Your task to perform on an android device: Show me productivity apps on the Play Store Image 0: 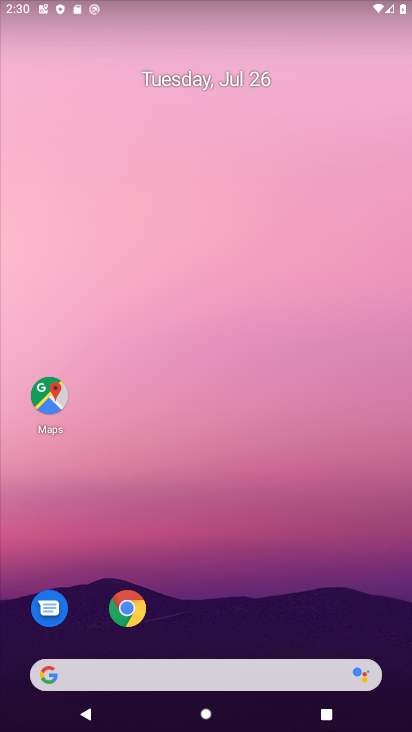
Step 0: drag from (305, 631) to (305, 109)
Your task to perform on an android device: Show me productivity apps on the Play Store Image 1: 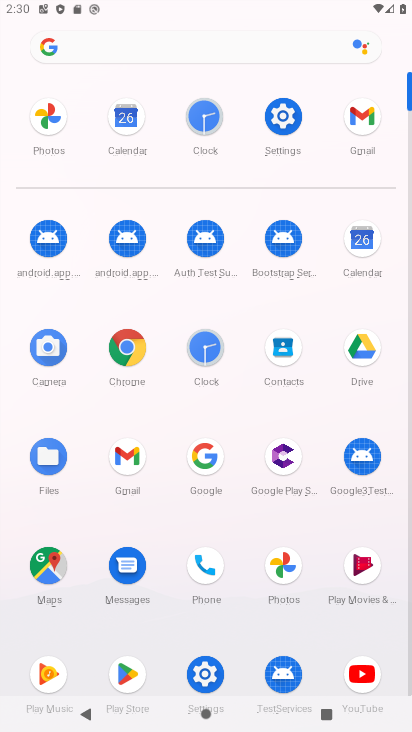
Step 1: click (121, 668)
Your task to perform on an android device: Show me productivity apps on the Play Store Image 2: 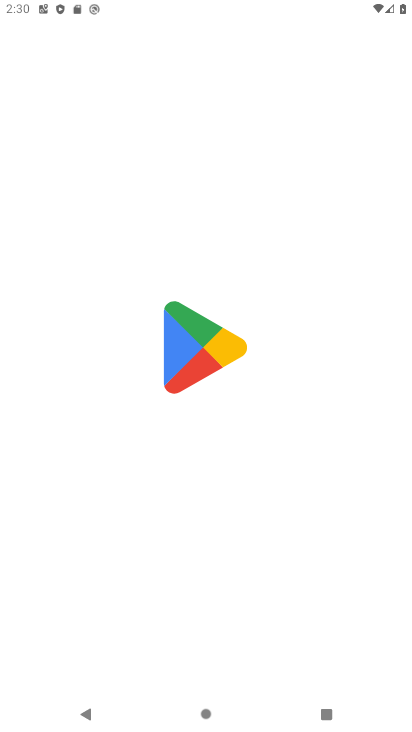
Step 2: task complete